Your task to perform on an android device: read, delete, or share a saved page in the chrome app Image 0: 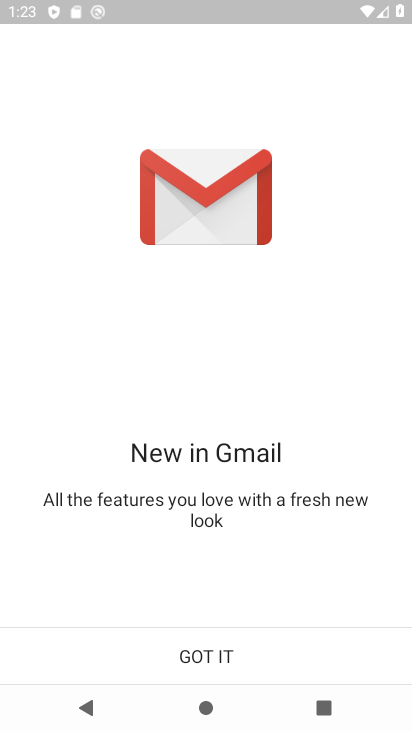
Step 0: click (274, 664)
Your task to perform on an android device: read, delete, or share a saved page in the chrome app Image 1: 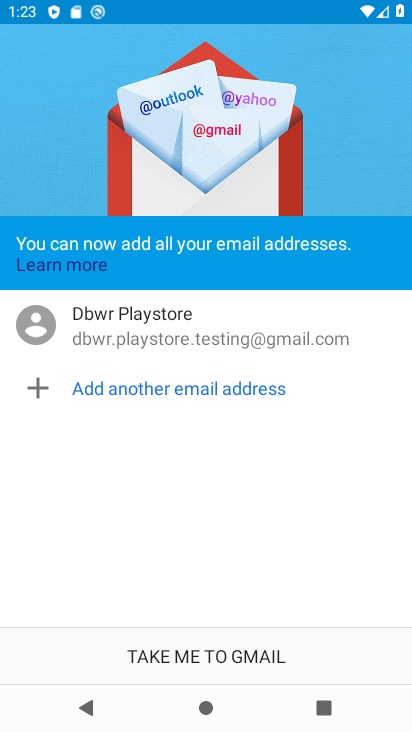
Step 1: click (320, 661)
Your task to perform on an android device: read, delete, or share a saved page in the chrome app Image 2: 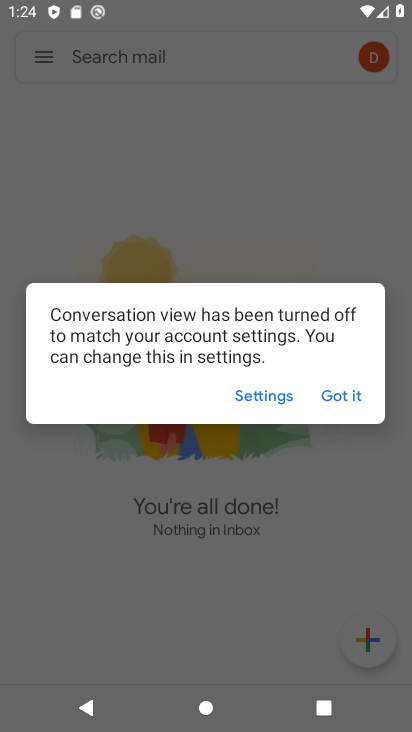
Step 2: click (337, 388)
Your task to perform on an android device: read, delete, or share a saved page in the chrome app Image 3: 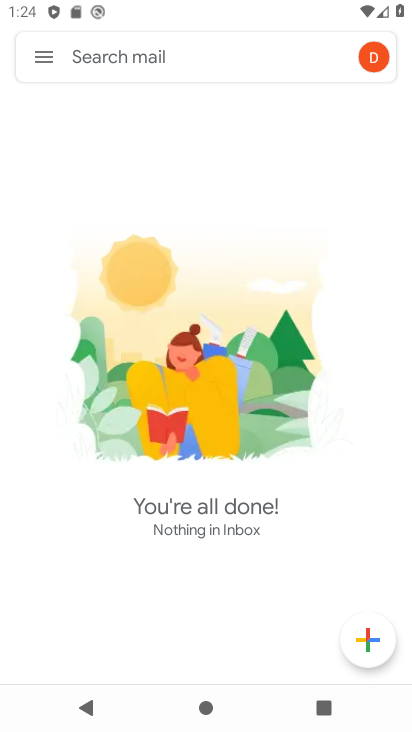
Step 3: click (380, 49)
Your task to perform on an android device: read, delete, or share a saved page in the chrome app Image 4: 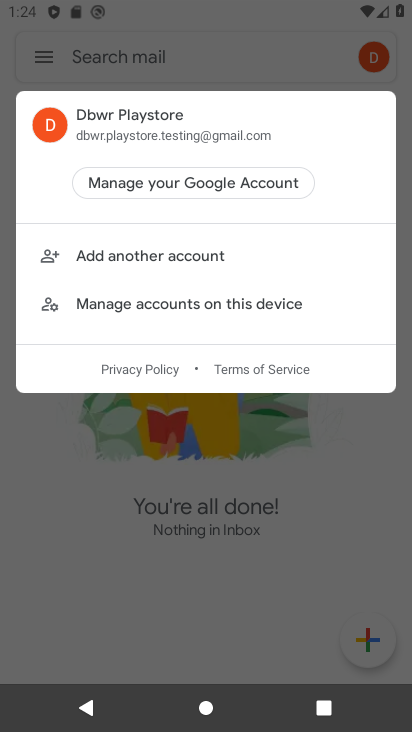
Step 4: click (177, 553)
Your task to perform on an android device: read, delete, or share a saved page in the chrome app Image 5: 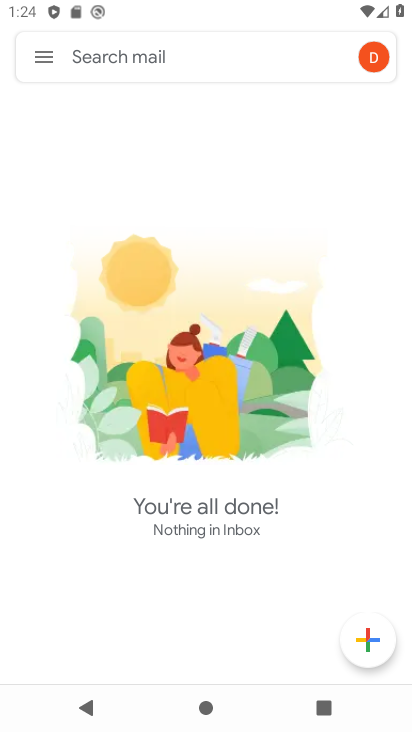
Step 5: press home button
Your task to perform on an android device: read, delete, or share a saved page in the chrome app Image 6: 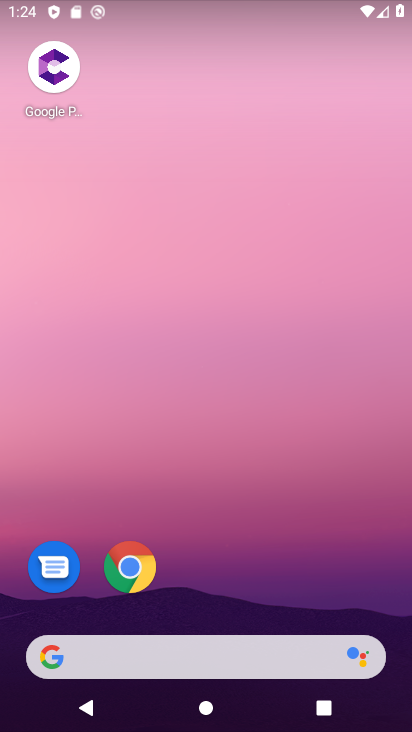
Step 6: click (127, 562)
Your task to perform on an android device: read, delete, or share a saved page in the chrome app Image 7: 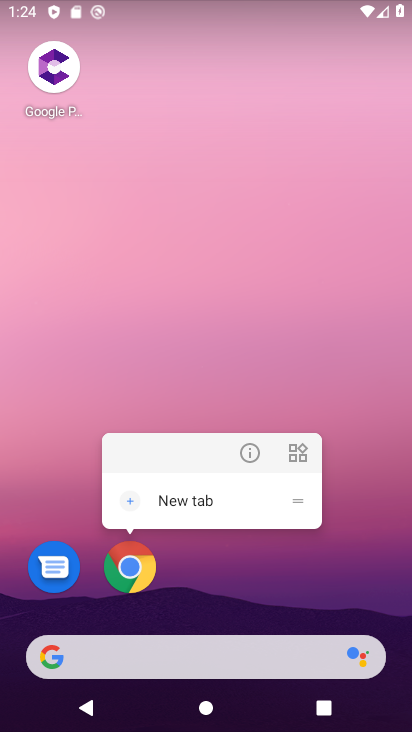
Step 7: click (135, 571)
Your task to perform on an android device: read, delete, or share a saved page in the chrome app Image 8: 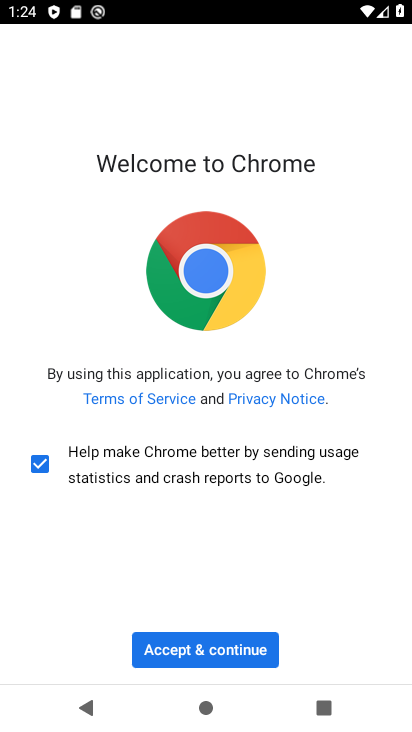
Step 8: click (201, 650)
Your task to perform on an android device: read, delete, or share a saved page in the chrome app Image 9: 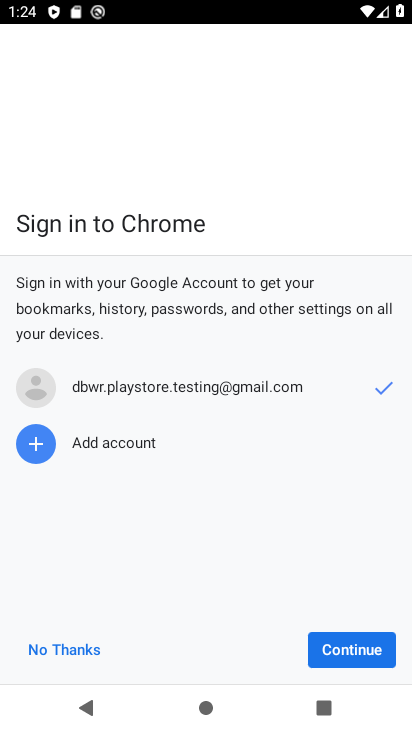
Step 9: click (339, 652)
Your task to perform on an android device: read, delete, or share a saved page in the chrome app Image 10: 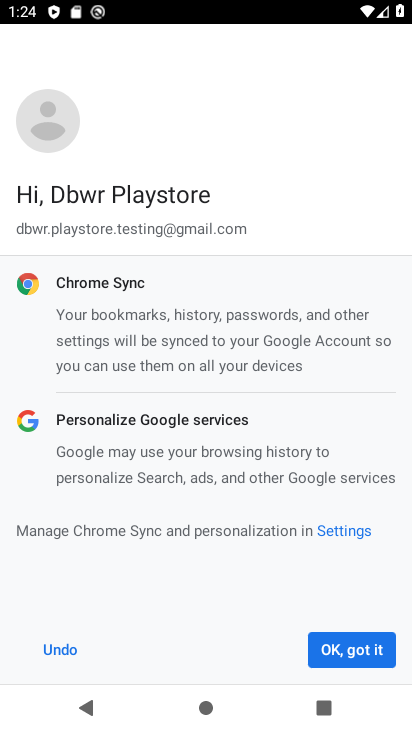
Step 10: click (340, 648)
Your task to perform on an android device: read, delete, or share a saved page in the chrome app Image 11: 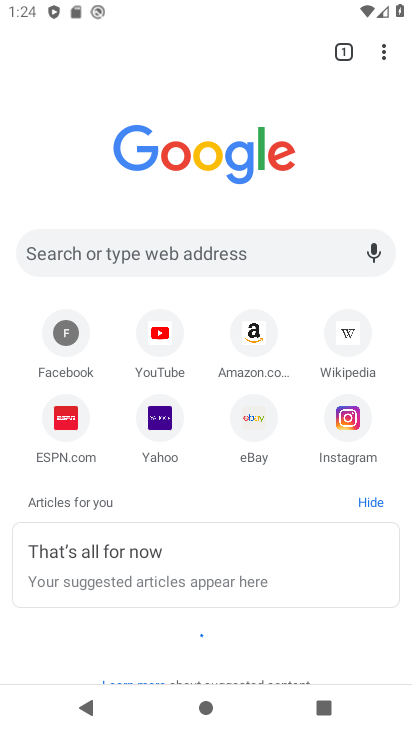
Step 11: task complete